Your task to perform on an android device: Search for vegetarian restaurants on Maps Image 0: 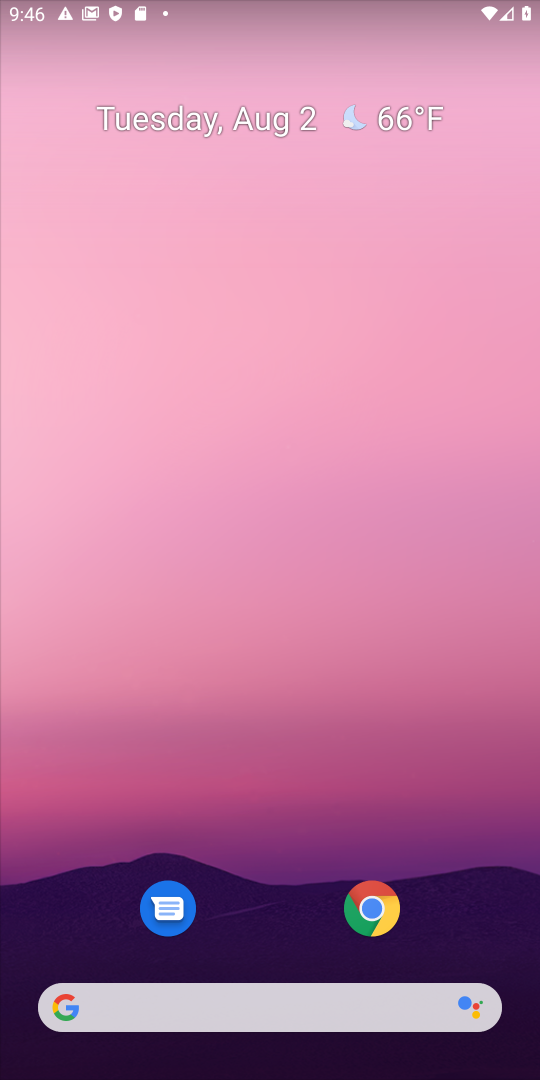
Step 0: drag from (166, 568) to (413, 127)
Your task to perform on an android device: Search for vegetarian restaurants on Maps Image 1: 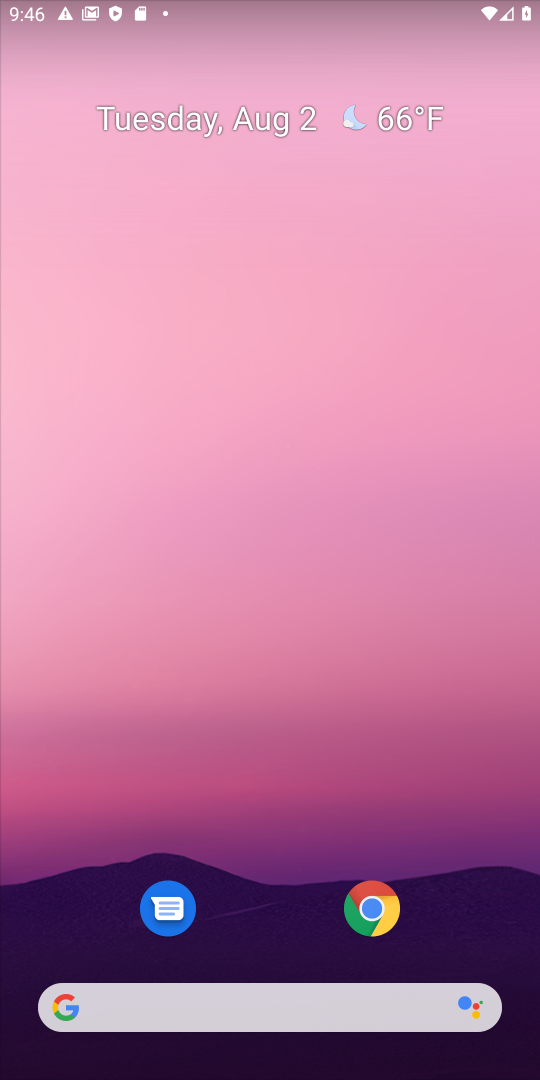
Step 1: drag from (47, 937) to (536, 86)
Your task to perform on an android device: Search for vegetarian restaurants on Maps Image 2: 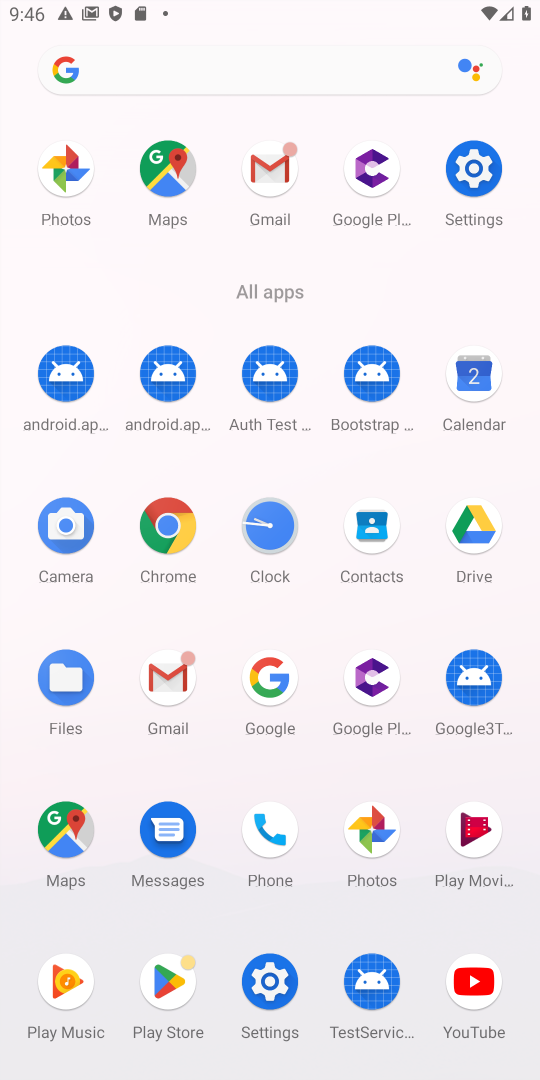
Step 2: click (45, 830)
Your task to perform on an android device: Search for vegetarian restaurants on Maps Image 3: 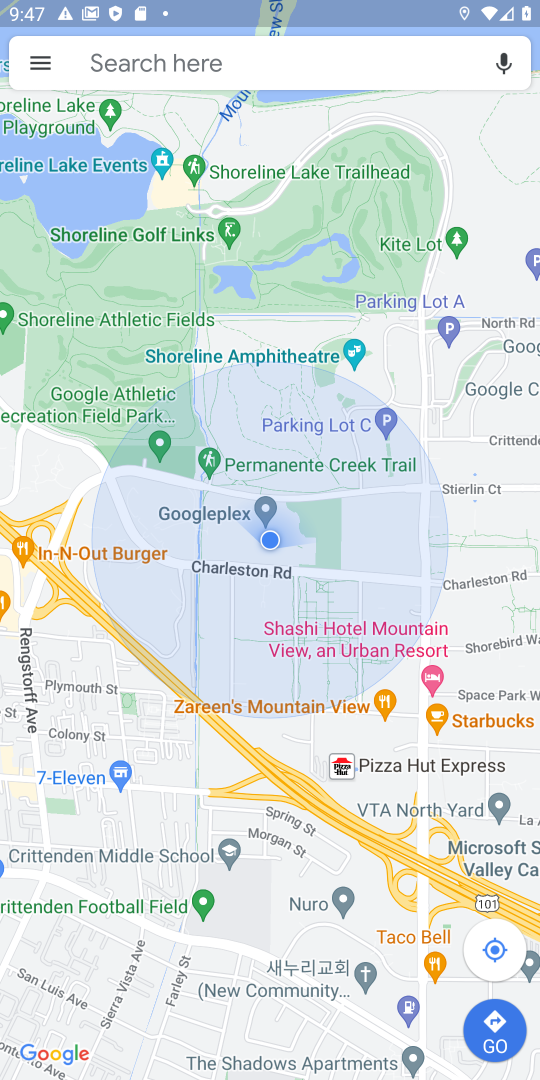
Step 3: click (148, 56)
Your task to perform on an android device: Search for vegetarian restaurants on Maps Image 4: 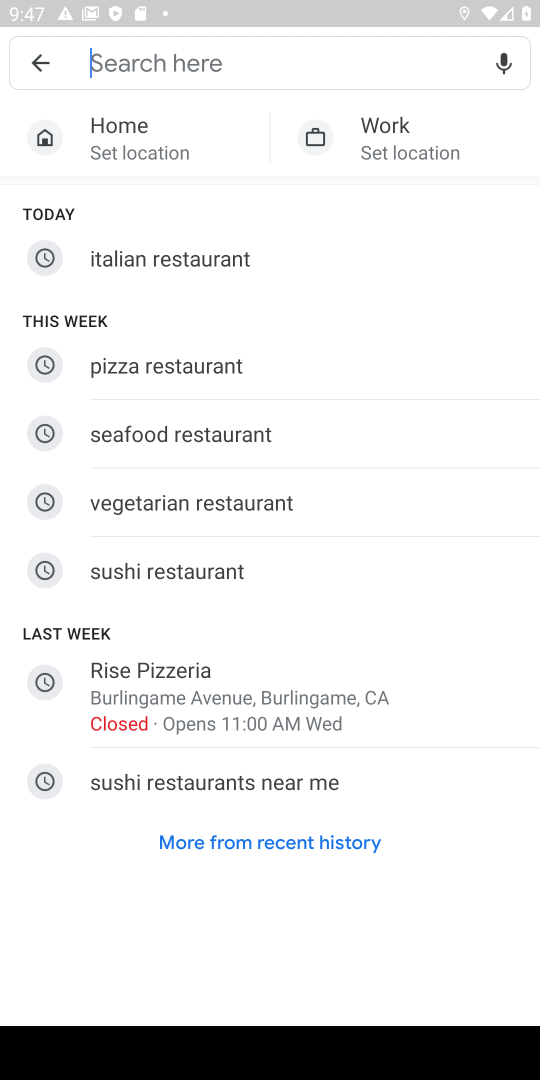
Step 4: type "vegetarian restaurants "
Your task to perform on an android device: Search for vegetarian restaurants on Maps Image 5: 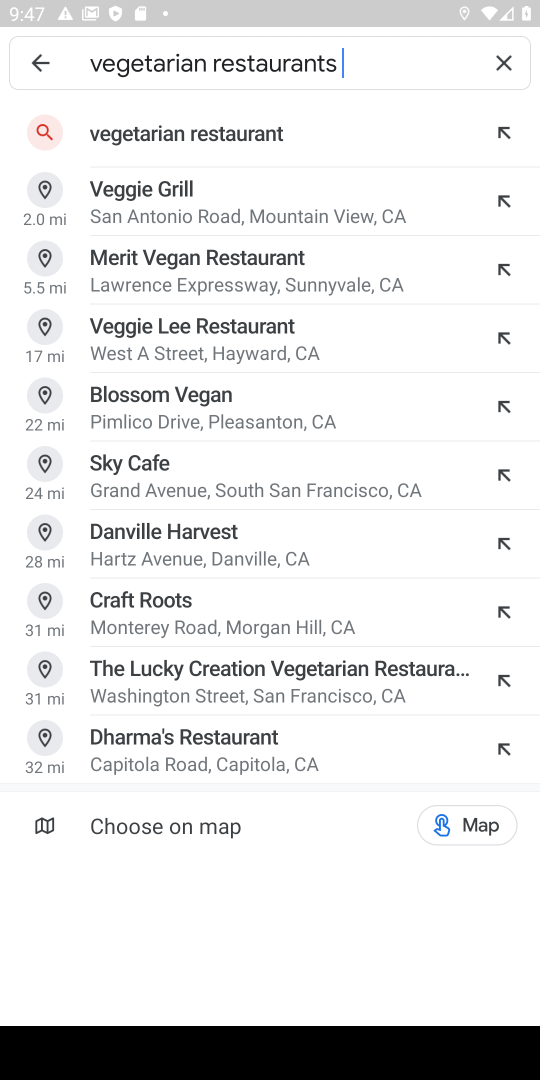
Step 5: click (149, 144)
Your task to perform on an android device: Search for vegetarian restaurants on Maps Image 6: 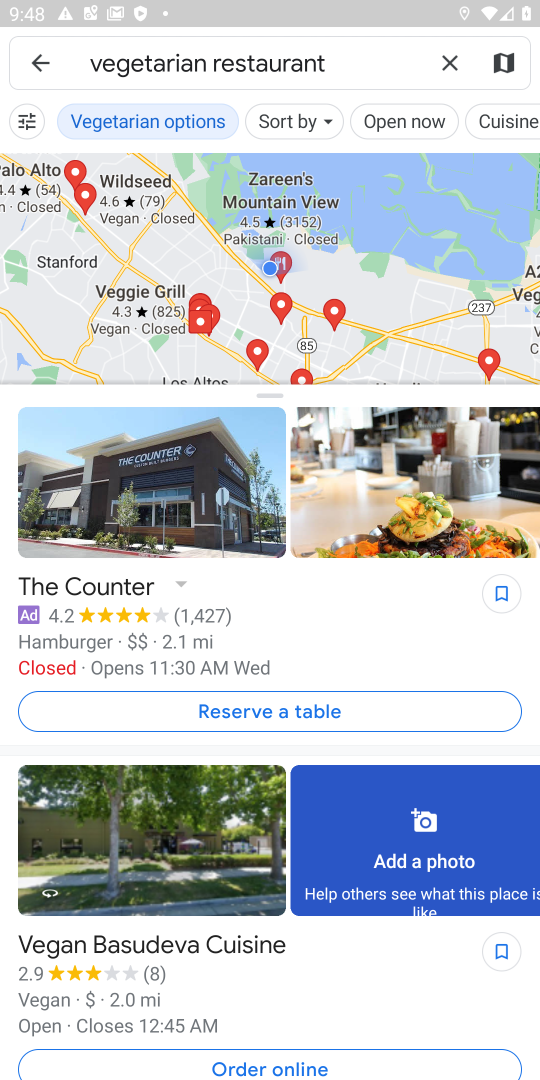
Step 6: task complete